Your task to perform on an android device: toggle data saver in the chrome app Image 0: 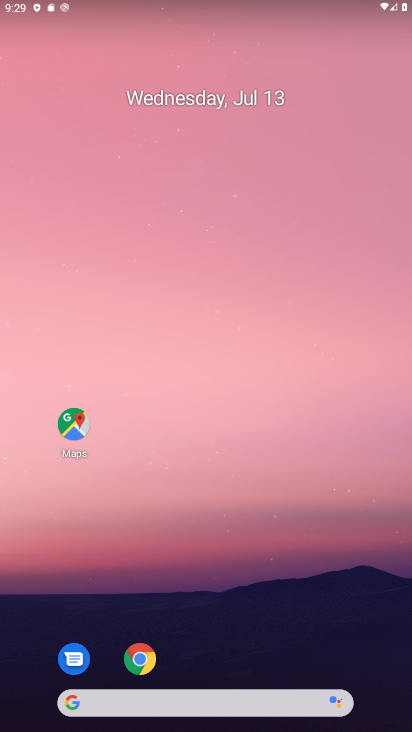
Step 0: click (139, 673)
Your task to perform on an android device: toggle data saver in the chrome app Image 1: 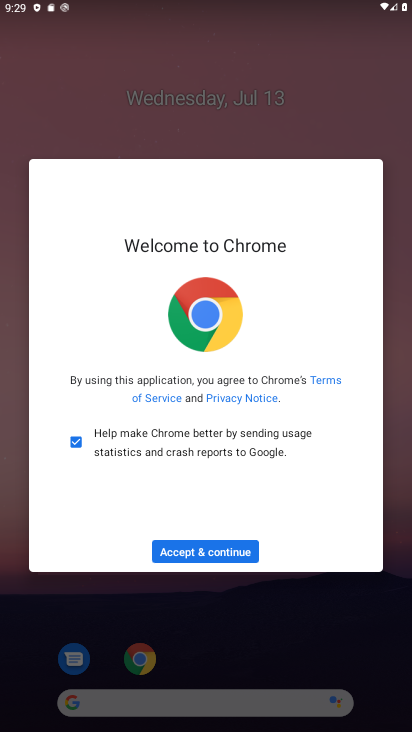
Step 1: click (218, 553)
Your task to perform on an android device: toggle data saver in the chrome app Image 2: 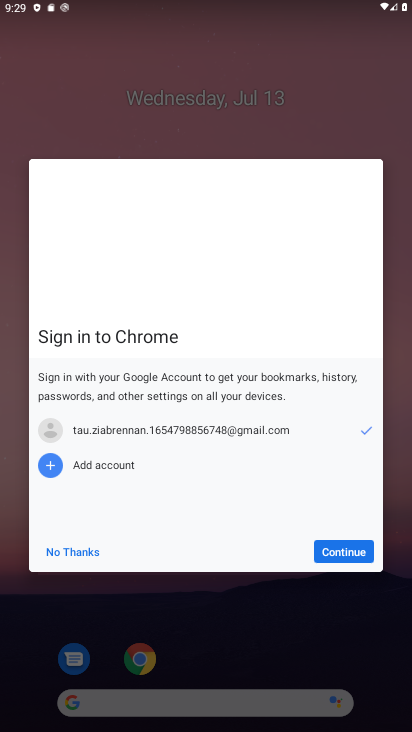
Step 2: click (356, 558)
Your task to perform on an android device: toggle data saver in the chrome app Image 3: 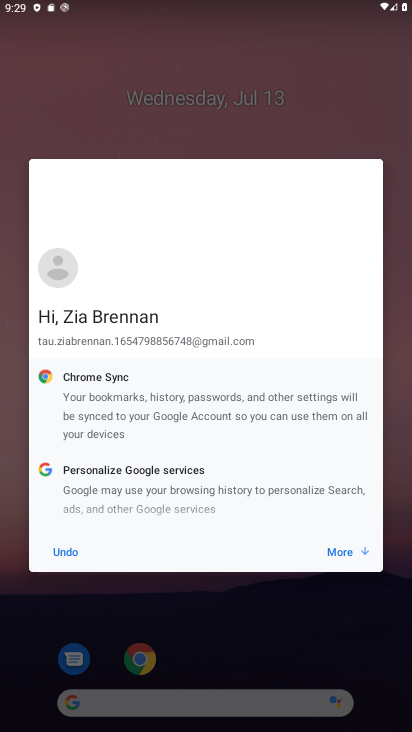
Step 3: click (345, 552)
Your task to perform on an android device: toggle data saver in the chrome app Image 4: 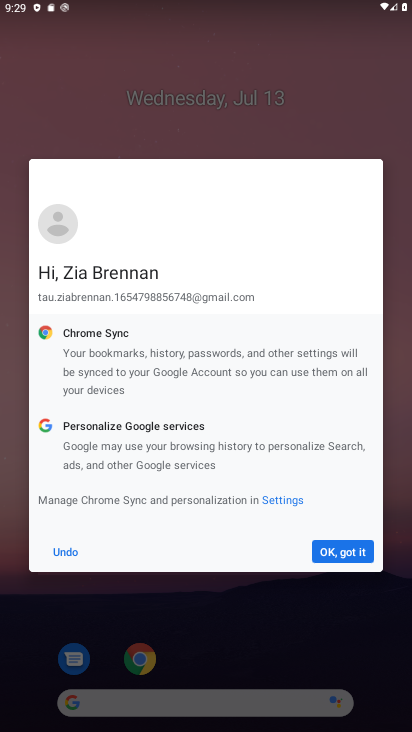
Step 4: click (339, 552)
Your task to perform on an android device: toggle data saver in the chrome app Image 5: 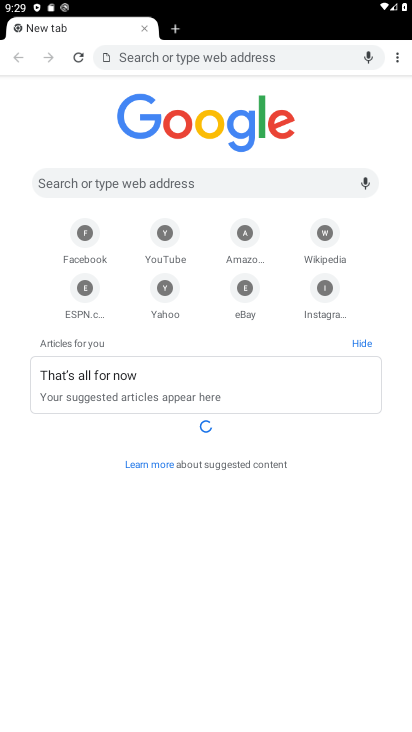
Step 5: drag from (397, 55) to (291, 265)
Your task to perform on an android device: toggle data saver in the chrome app Image 6: 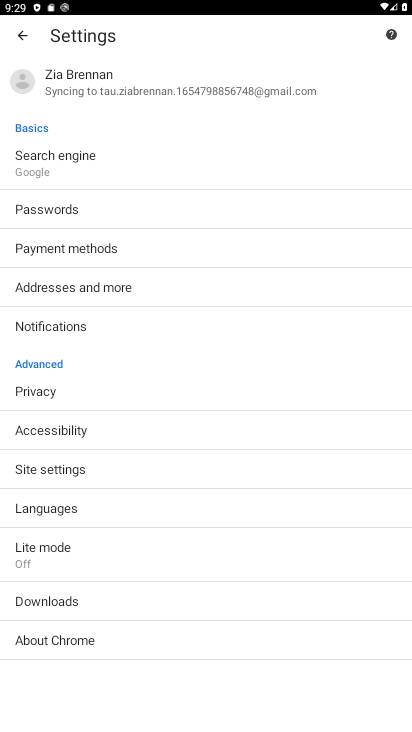
Step 6: click (52, 557)
Your task to perform on an android device: toggle data saver in the chrome app Image 7: 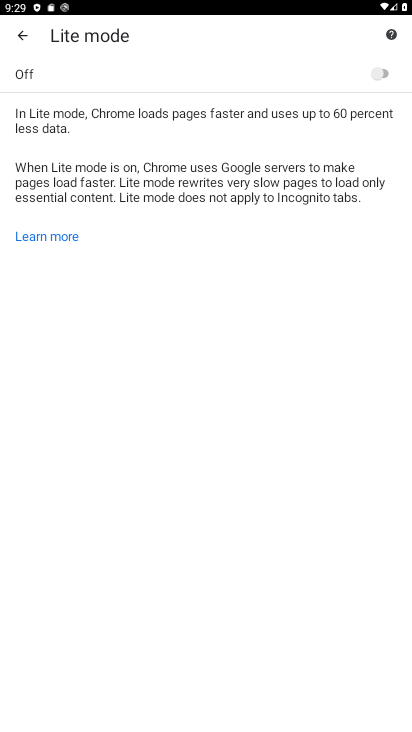
Step 7: click (387, 71)
Your task to perform on an android device: toggle data saver in the chrome app Image 8: 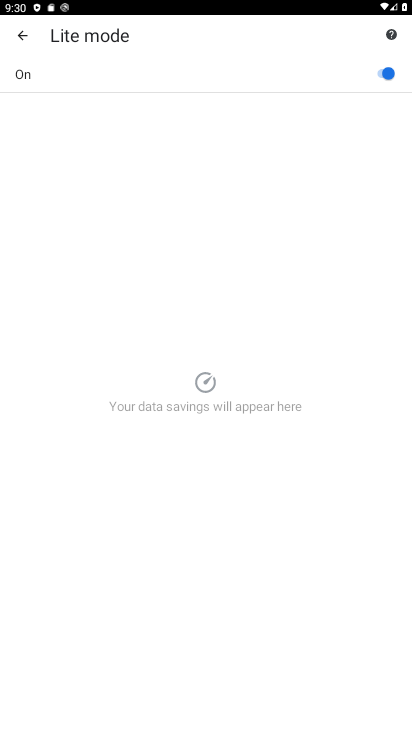
Step 8: task complete